Your task to perform on an android device: show emergency info Image 0: 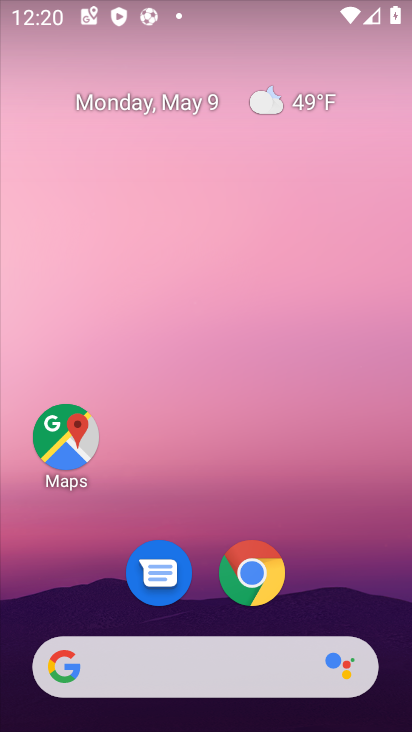
Step 0: drag from (288, 728) to (318, 7)
Your task to perform on an android device: show emergency info Image 1: 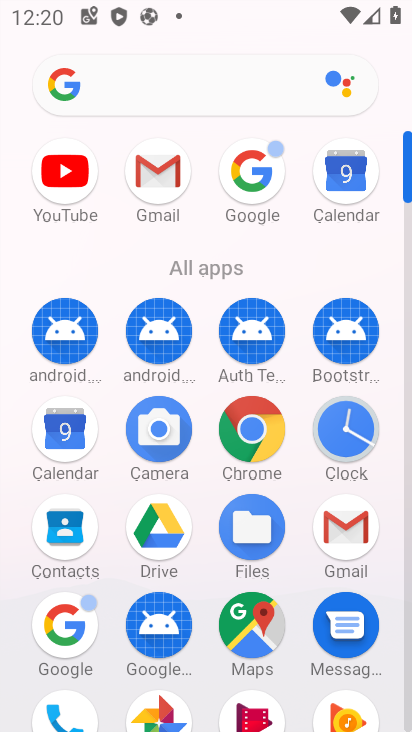
Step 1: drag from (228, 563) to (307, 126)
Your task to perform on an android device: show emergency info Image 2: 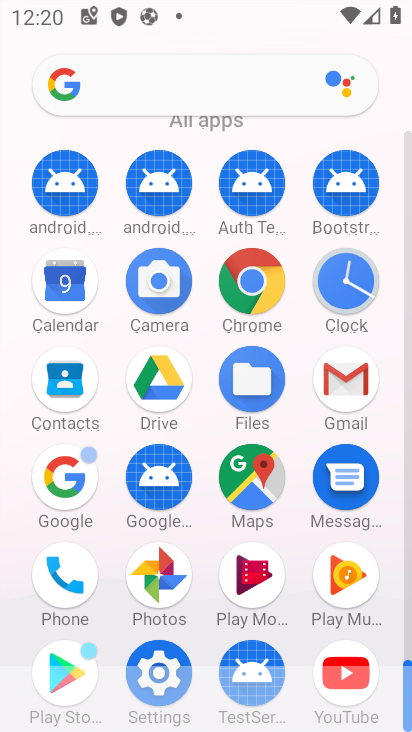
Step 2: click (152, 652)
Your task to perform on an android device: show emergency info Image 3: 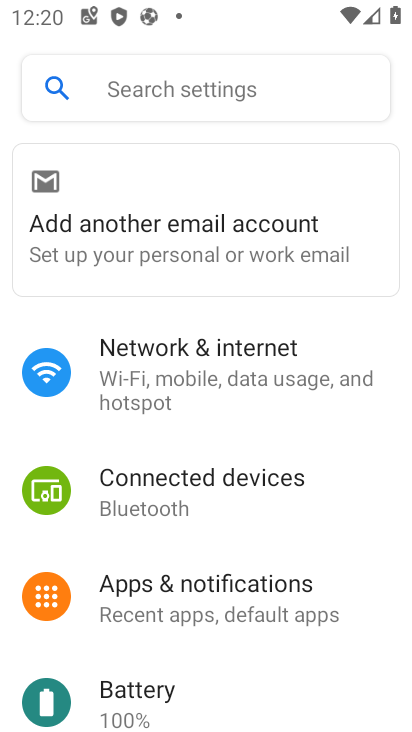
Step 3: drag from (229, 631) to (213, 0)
Your task to perform on an android device: show emergency info Image 4: 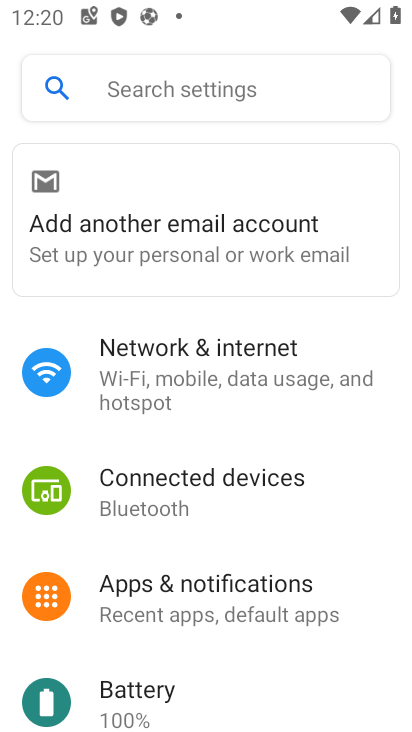
Step 4: drag from (160, 625) to (174, 22)
Your task to perform on an android device: show emergency info Image 5: 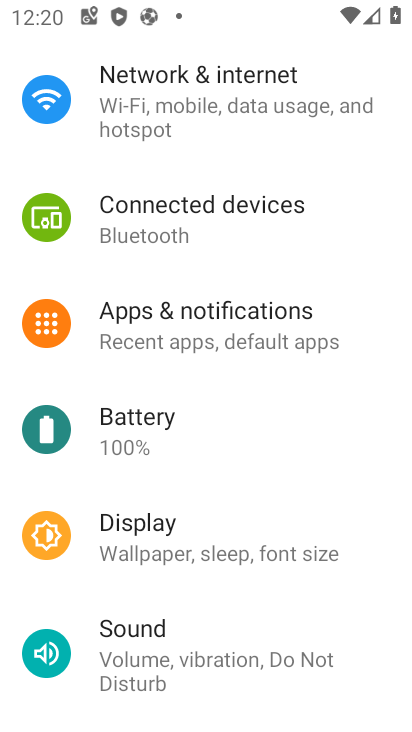
Step 5: drag from (191, 559) to (208, 59)
Your task to perform on an android device: show emergency info Image 6: 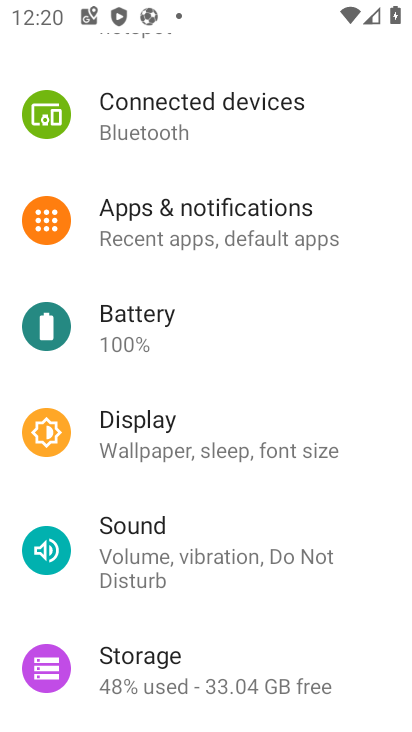
Step 6: drag from (306, 694) to (163, 20)
Your task to perform on an android device: show emergency info Image 7: 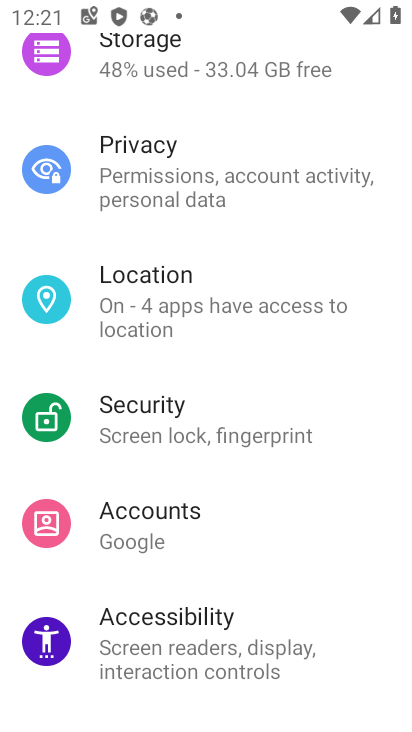
Step 7: drag from (216, 670) to (135, 1)
Your task to perform on an android device: show emergency info Image 8: 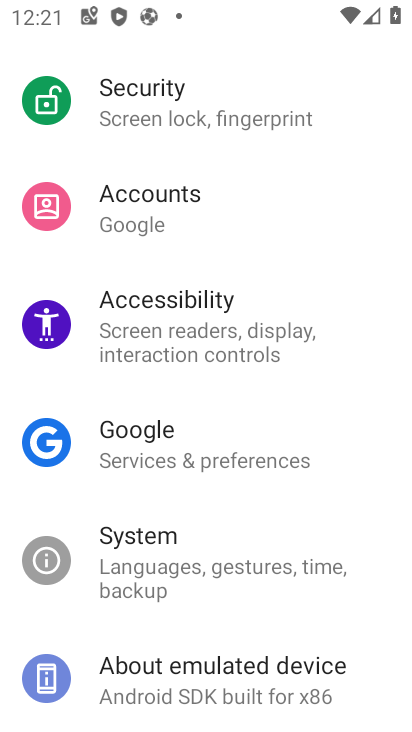
Step 8: drag from (236, 726) to (147, 51)
Your task to perform on an android device: show emergency info Image 9: 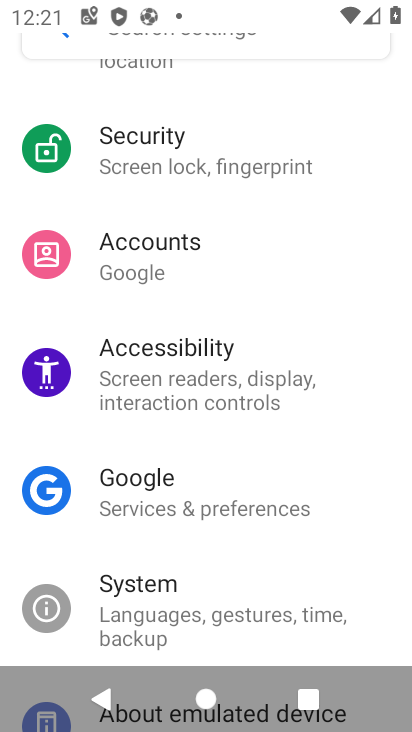
Step 9: drag from (254, 587) to (146, 5)
Your task to perform on an android device: show emergency info Image 10: 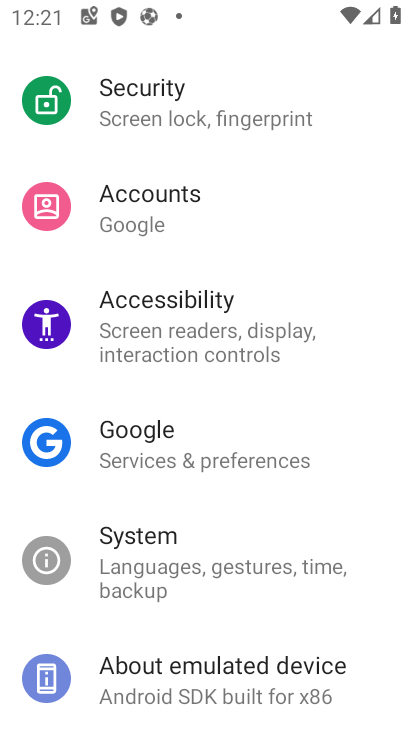
Step 10: click (248, 663)
Your task to perform on an android device: show emergency info Image 11: 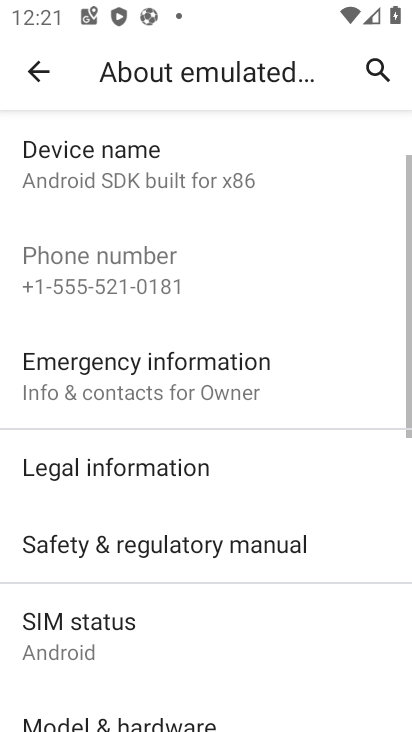
Step 11: drag from (306, 713) to (189, 21)
Your task to perform on an android device: show emergency info Image 12: 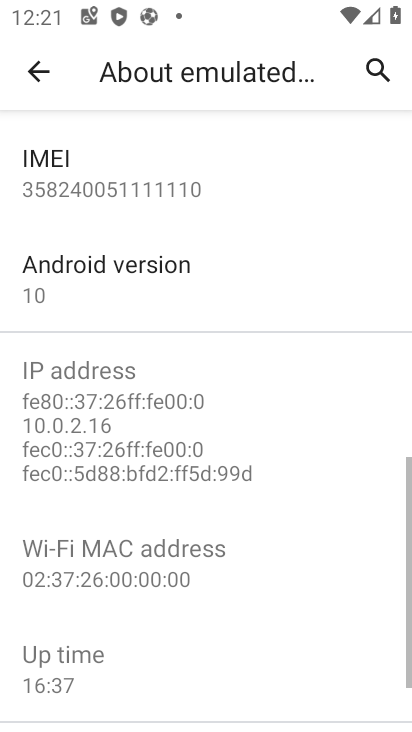
Step 12: drag from (297, 202) to (160, 695)
Your task to perform on an android device: show emergency info Image 13: 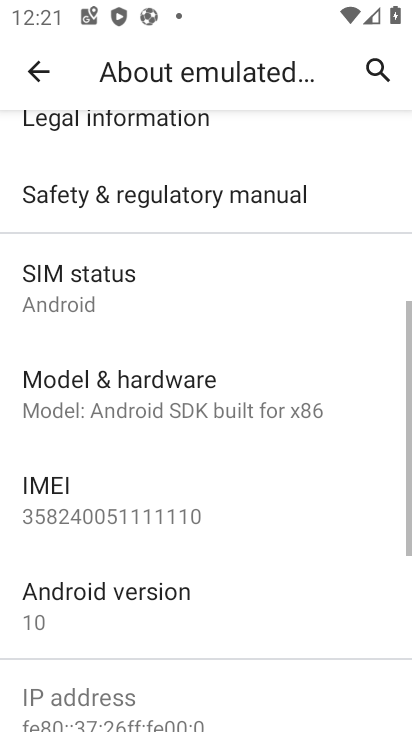
Step 13: drag from (332, 156) to (265, 663)
Your task to perform on an android device: show emergency info Image 14: 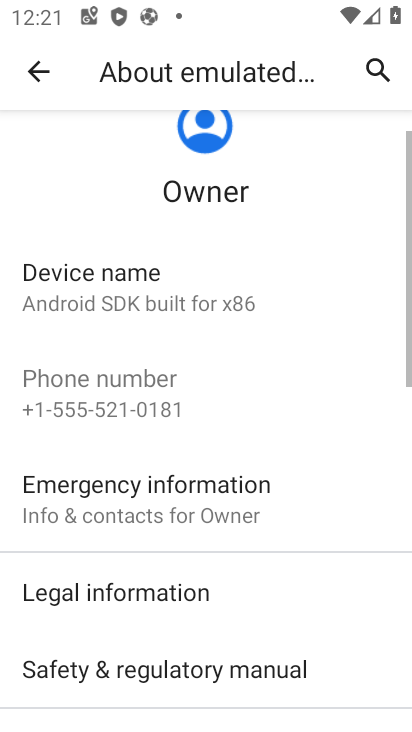
Step 14: click (199, 506)
Your task to perform on an android device: show emergency info Image 15: 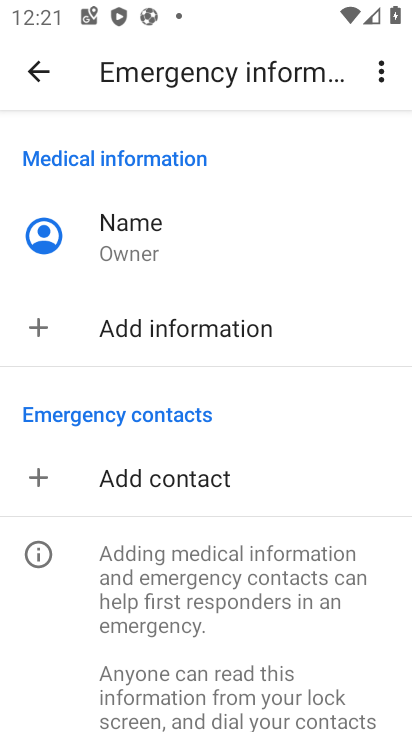
Step 15: task complete